Your task to perform on an android device: Do I have any events this weekend? Image 0: 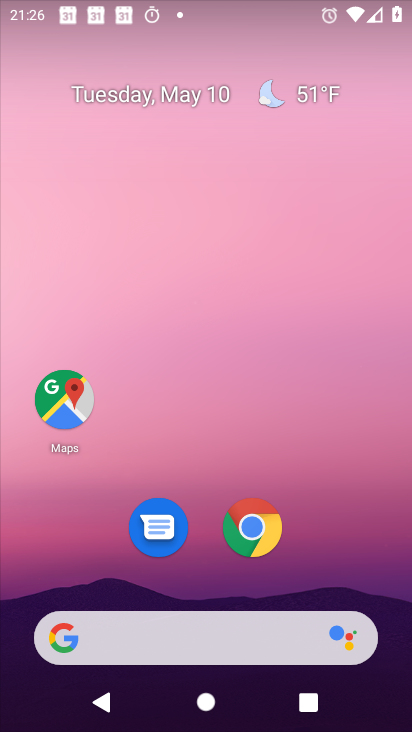
Step 0: drag from (236, 585) to (201, 10)
Your task to perform on an android device: Do I have any events this weekend? Image 1: 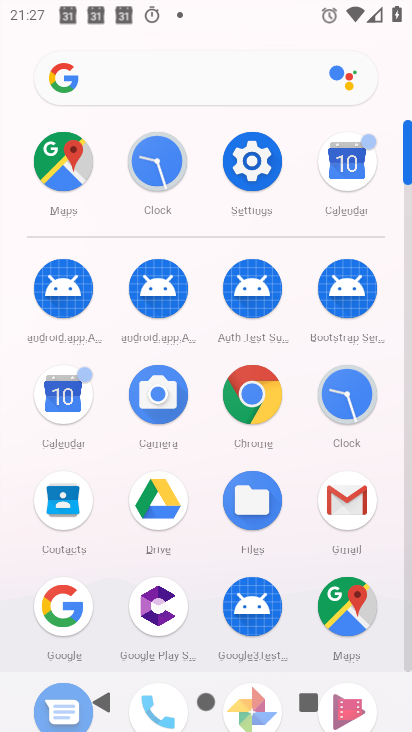
Step 1: click (79, 396)
Your task to perform on an android device: Do I have any events this weekend? Image 2: 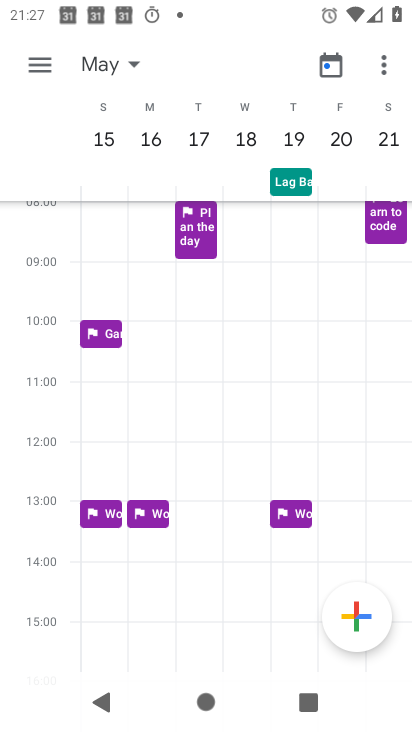
Step 2: task complete